Your task to perform on an android device: check battery use Image 0: 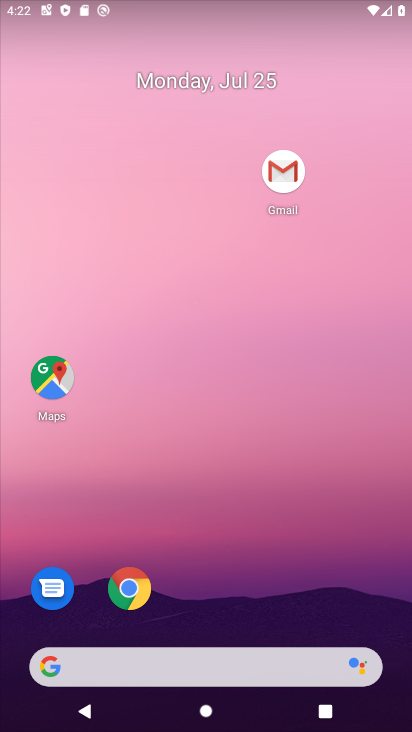
Step 0: drag from (317, 587) to (233, 46)
Your task to perform on an android device: check battery use Image 1: 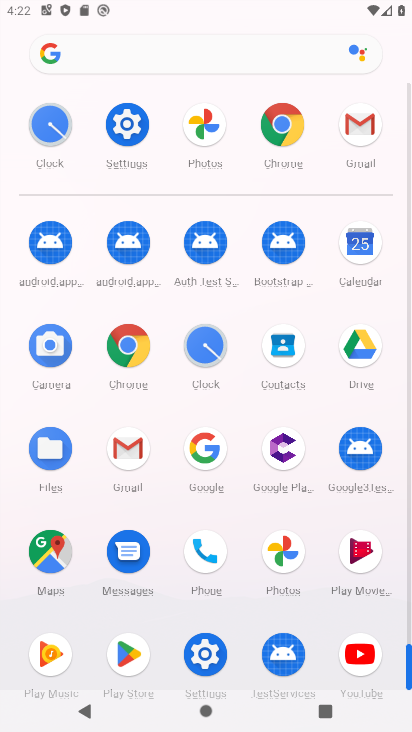
Step 1: click (134, 118)
Your task to perform on an android device: check battery use Image 2: 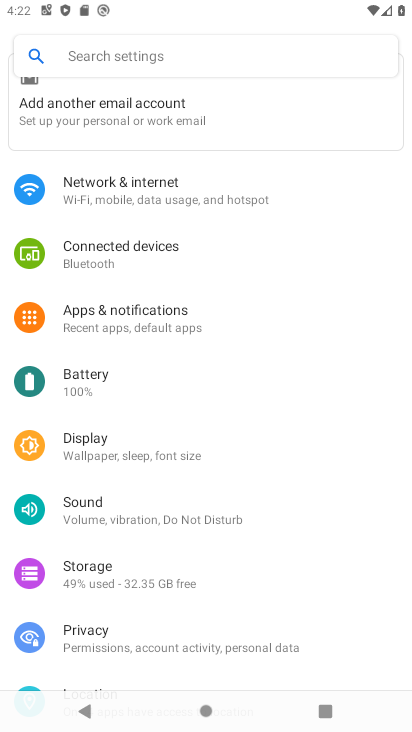
Step 2: click (100, 397)
Your task to perform on an android device: check battery use Image 3: 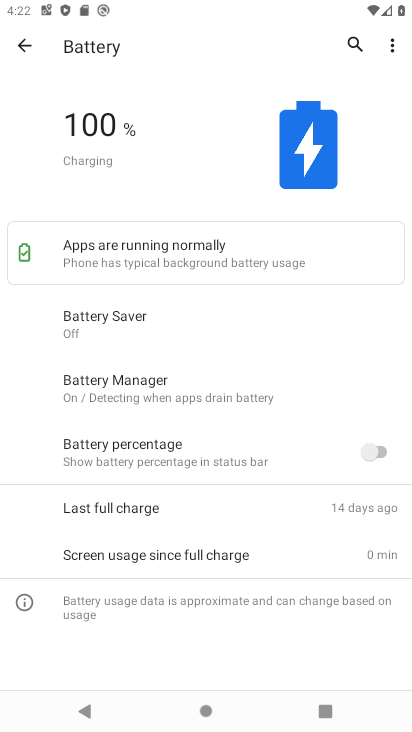
Step 3: click (397, 44)
Your task to perform on an android device: check battery use Image 4: 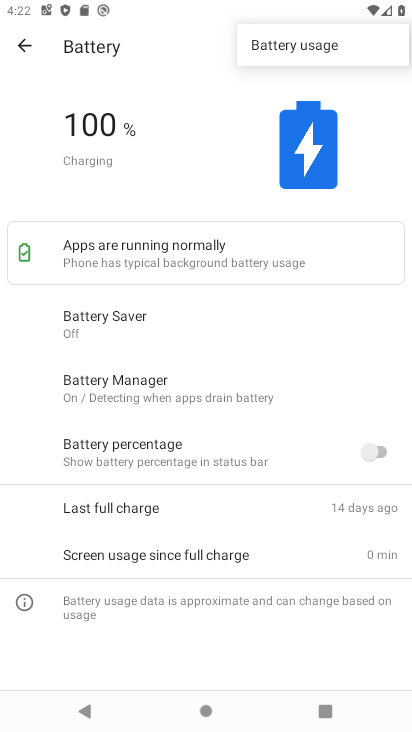
Step 4: click (331, 48)
Your task to perform on an android device: check battery use Image 5: 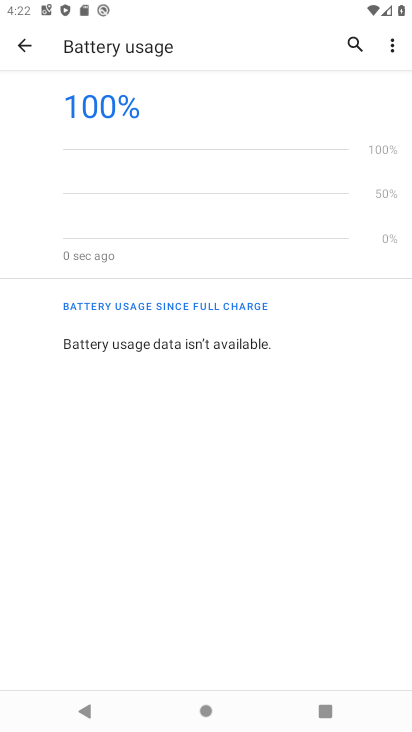
Step 5: task complete